Your task to perform on an android device: Is it going to rain this weekend? Image 0: 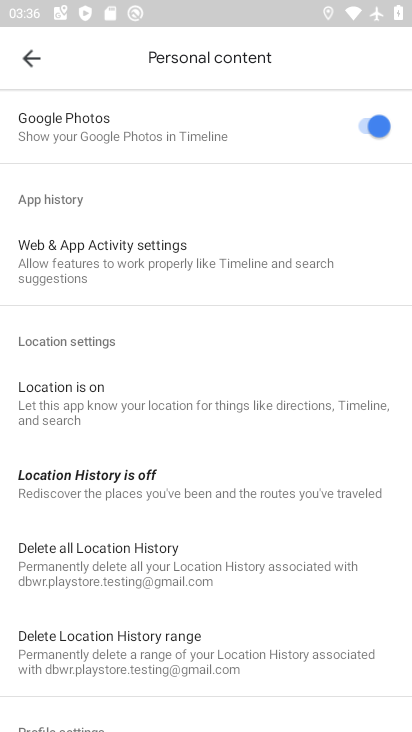
Step 0: press home button
Your task to perform on an android device: Is it going to rain this weekend? Image 1: 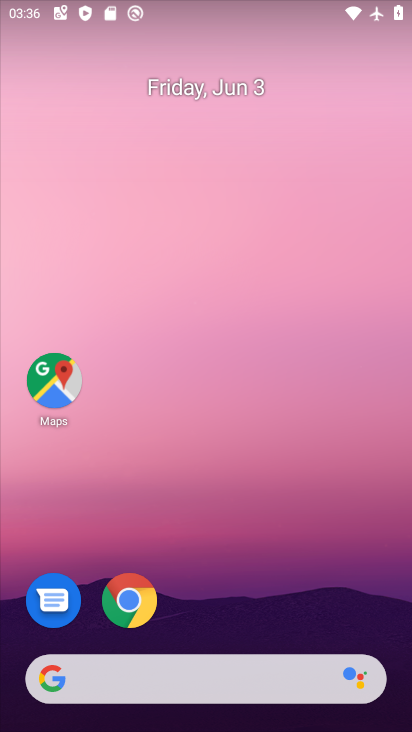
Step 1: click (209, 682)
Your task to perform on an android device: Is it going to rain this weekend? Image 2: 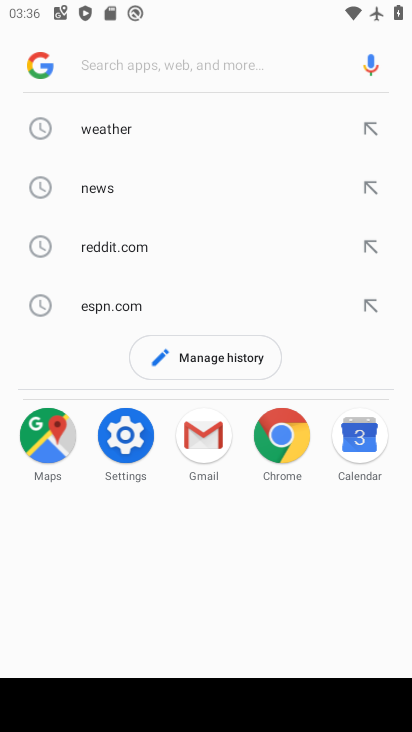
Step 2: click (128, 126)
Your task to perform on an android device: Is it going to rain this weekend? Image 3: 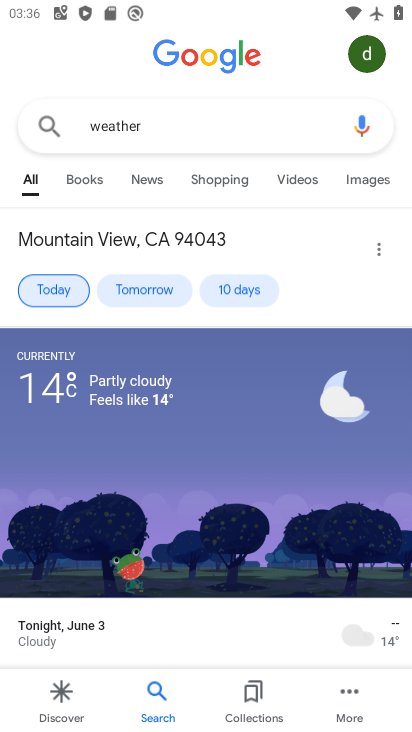
Step 3: click (253, 293)
Your task to perform on an android device: Is it going to rain this weekend? Image 4: 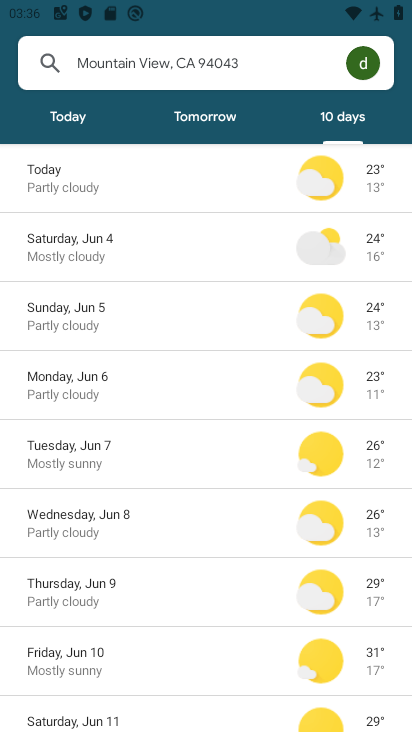
Step 4: task complete